Your task to perform on an android device: Open battery settings Image 0: 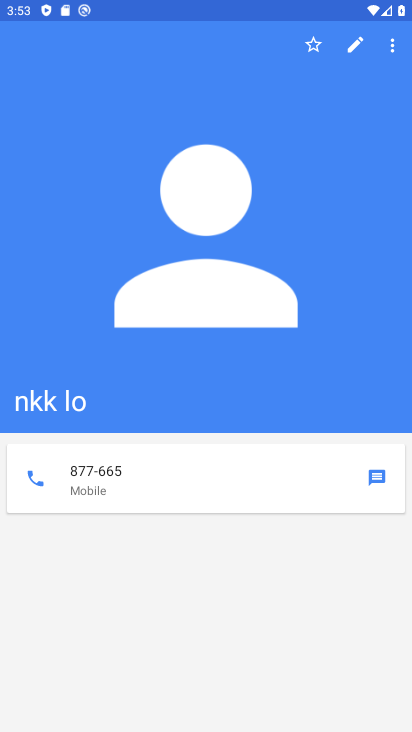
Step 0: press home button
Your task to perform on an android device: Open battery settings Image 1: 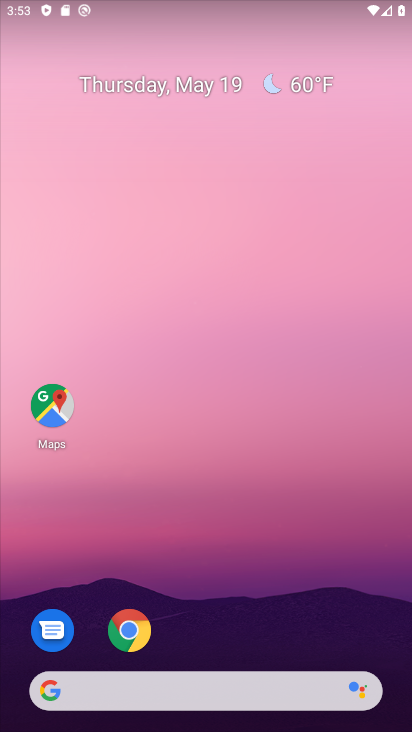
Step 1: drag from (226, 723) to (222, 67)
Your task to perform on an android device: Open battery settings Image 2: 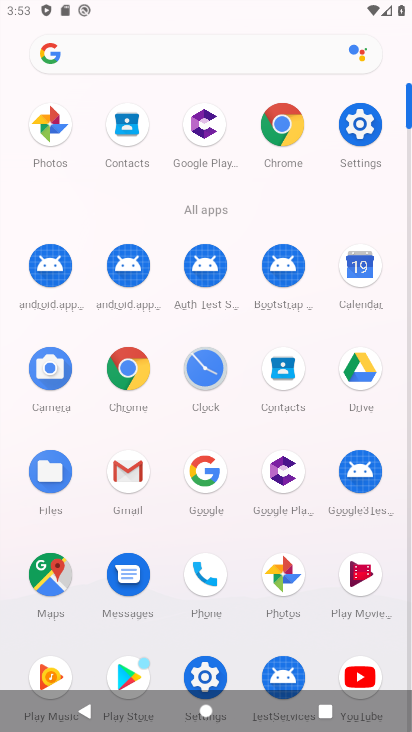
Step 2: click (360, 128)
Your task to perform on an android device: Open battery settings Image 3: 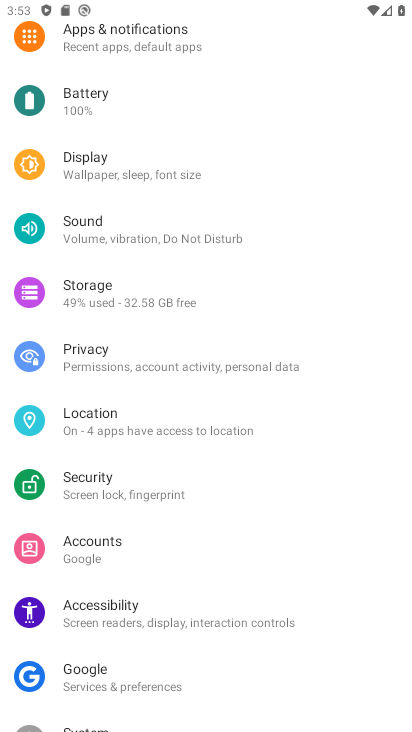
Step 3: click (85, 102)
Your task to perform on an android device: Open battery settings Image 4: 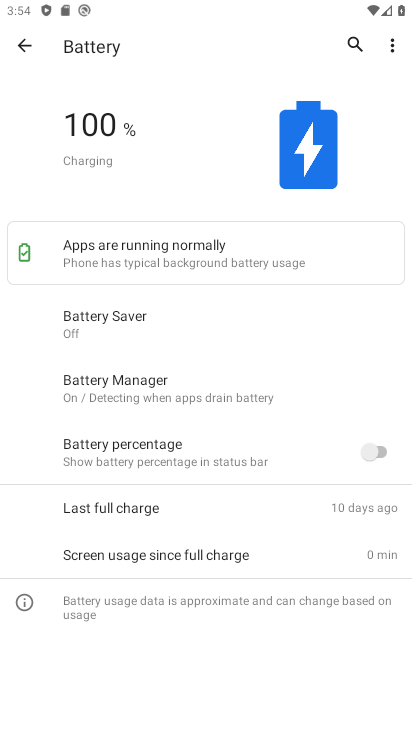
Step 4: task complete